Your task to perform on an android device: remove spam from my inbox in the gmail app Image 0: 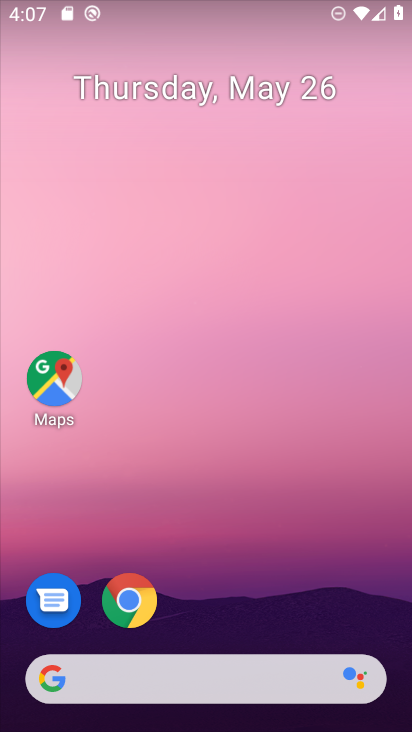
Step 0: drag from (231, 562) to (175, 9)
Your task to perform on an android device: remove spam from my inbox in the gmail app Image 1: 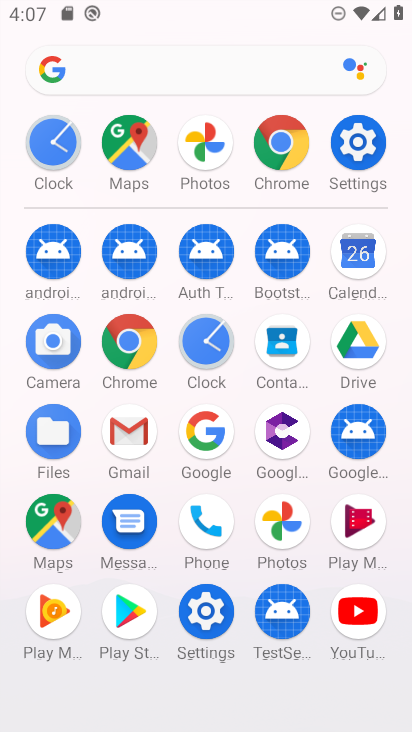
Step 1: click (129, 424)
Your task to perform on an android device: remove spam from my inbox in the gmail app Image 2: 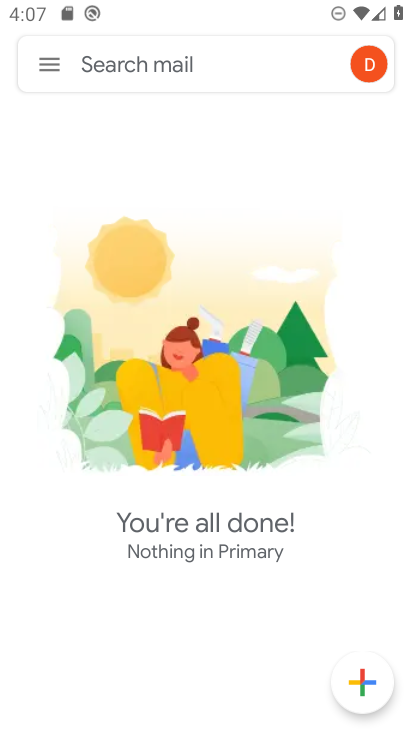
Step 2: click (55, 57)
Your task to perform on an android device: remove spam from my inbox in the gmail app Image 3: 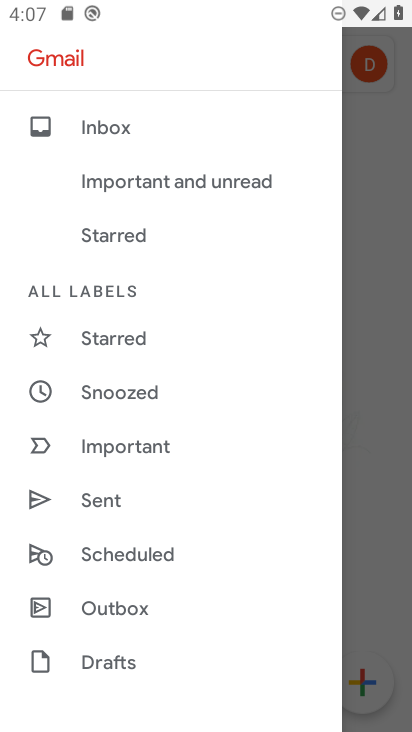
Step 3: drag from (191, 583) to (152, 178)
Your task to perform on an android device: remove spam from my inbox in the gmail app Image 4: 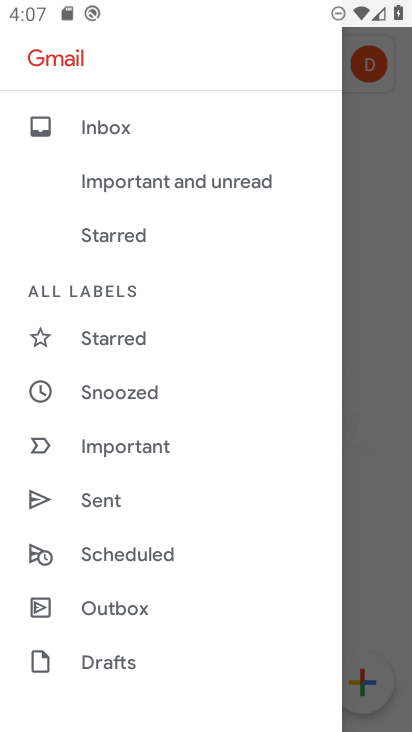
Step 4: drag from (161, 590) to (168, 246)
Your task to perform on an android device: remove spam from my inbox in the gmail app Image 5: 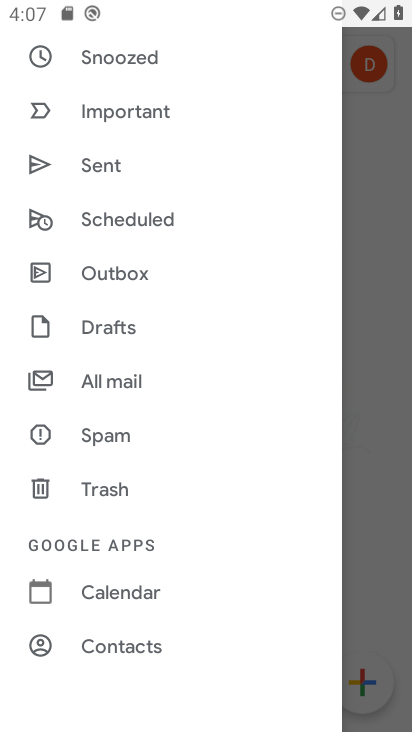
Step 5: click (95, 434)
Your task to perform on an android device: remove spam from my inbox in the gmail app Image 6: 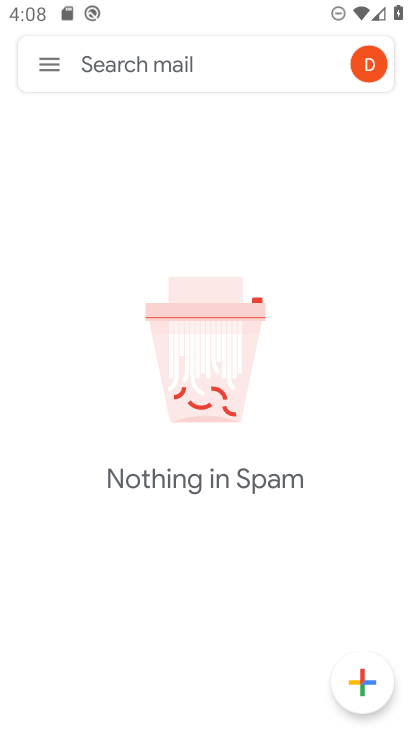
Step 6: task complete